Your task to perform on an android device: Is it going to rain this weekend? Image 0: 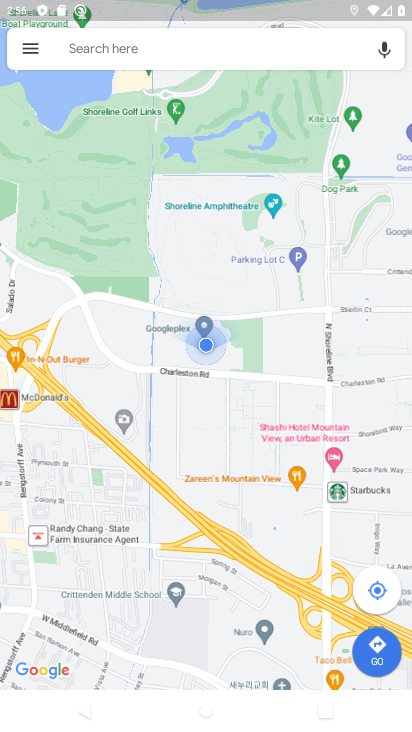
Step 0: press home button
Your task to perform on an android device: Is it going to rain this weekend? Image 1: 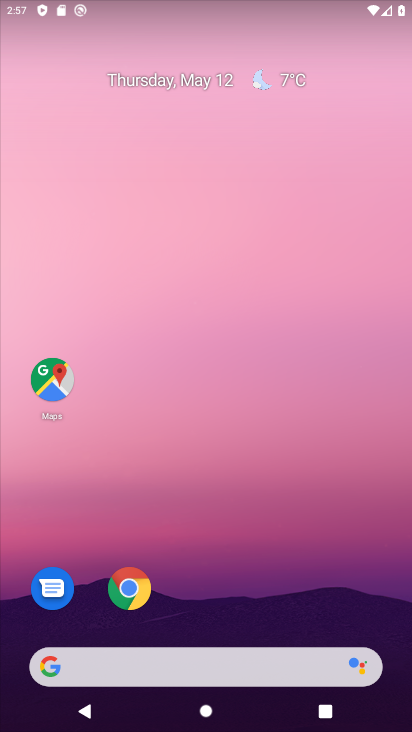
Step 1: click (125, 597)
Your task to perform on an android device: Is it going to rain this weekend? Image 2: 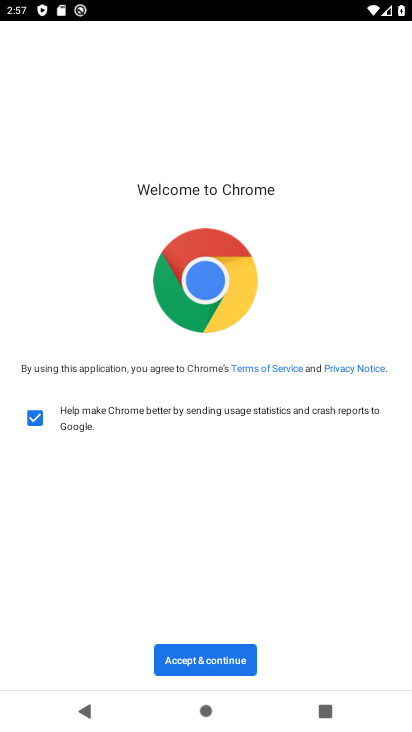
Step 2: click (192, 658)
Your task to perform on an android device: Is it going to rain this weekend? Image 3: 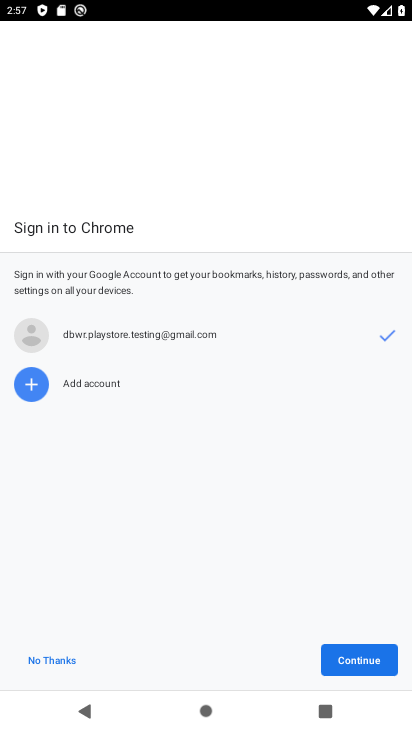
Step 3: click (341, 670)
Your task to perform on an android device: Is it going to rain this weekend? Image 4: 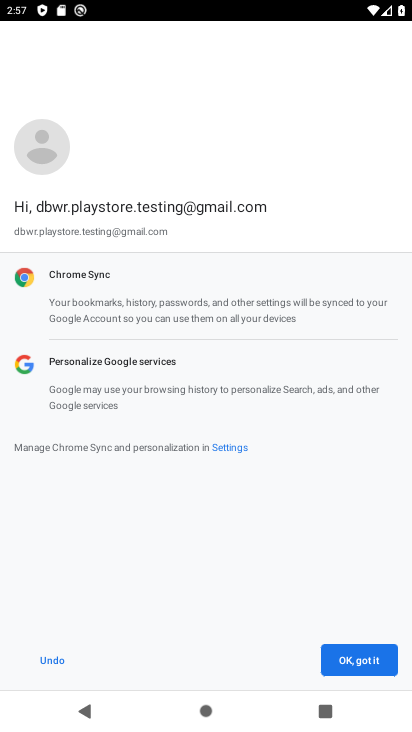
Step 4: click (340, 668)
Your task to perform on an android device: Is it going to rain this weekend? Image 5: 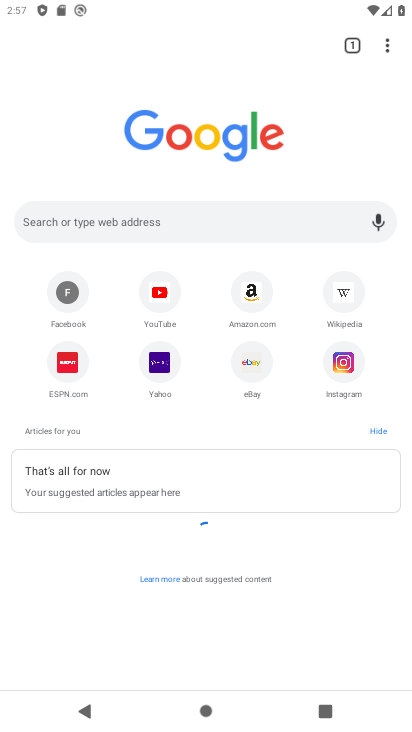
Step 5: click (183, 220)
Your task to perform on an android device: Is it going to rain this weekend? Image 6: 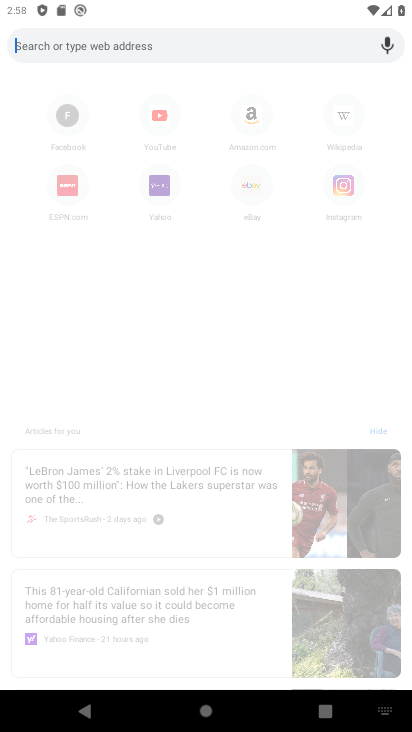
Step 6: type "is it going to rain this wekend?"
Your task to perform on an android device: Is it going to rain this weekend? Image 7: 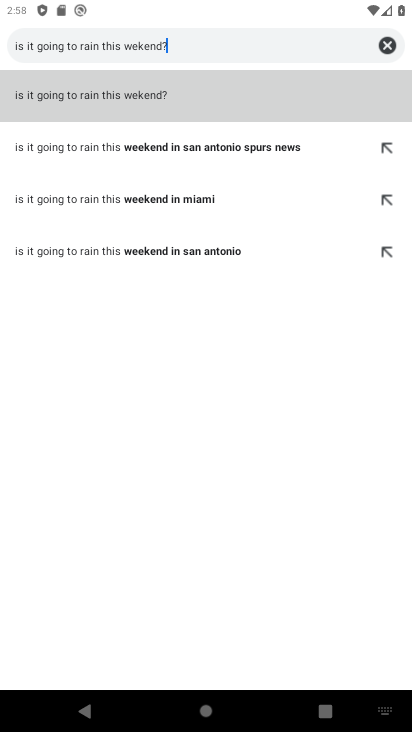
Step 7: click (85, 95)
Your task to perform on an android device: Is it going to rain this weekend? Image 8: 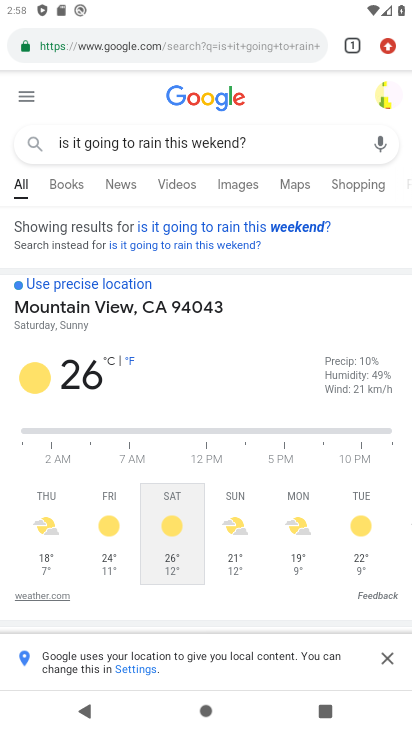
Step 8: task complete